Your task to perform on an android device: turn off location Image 0: 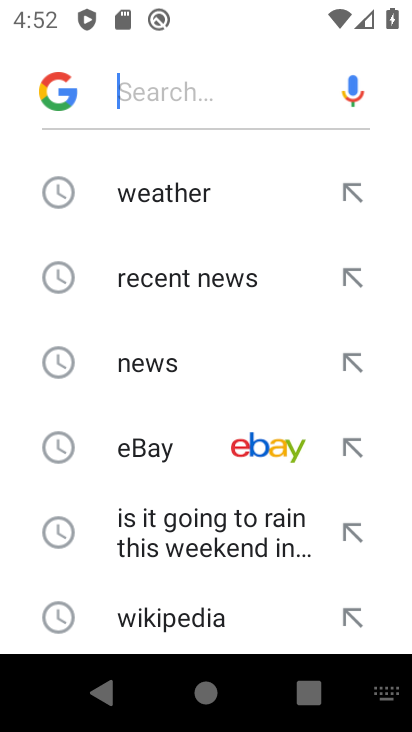
Step 0: press home button
Your task to perform on an android device: turn off location Image 1: 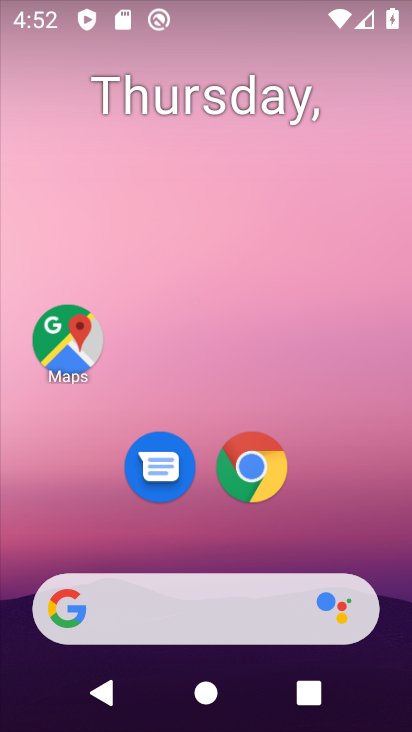
Step 1: drag from (381, 554) to (375, 129)
Your task to perform on an android device: turn off location Image 2: 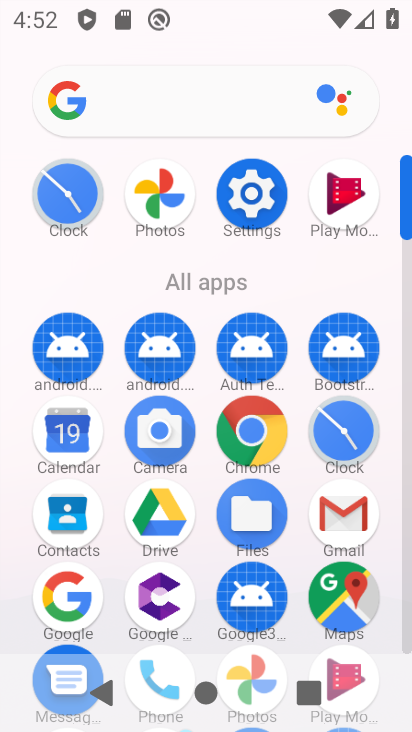
Step 2: click (241, 194)
Your task to perform on an android device: turn off location Image 3: 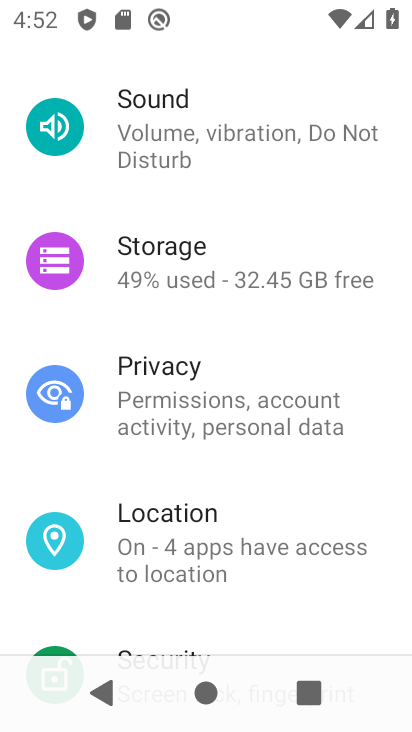
Step 3: click (277, 540)
Your task to perform on an android device: turn off location Image 4: 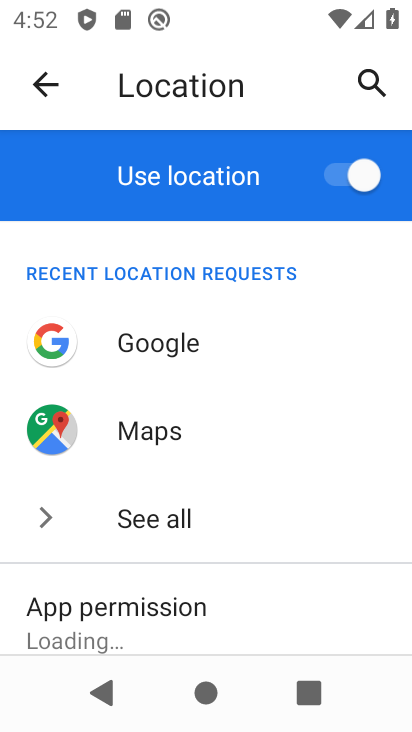
Step 4: click (349, 192)
Your task to perform on an android device: turn off location Image 5: 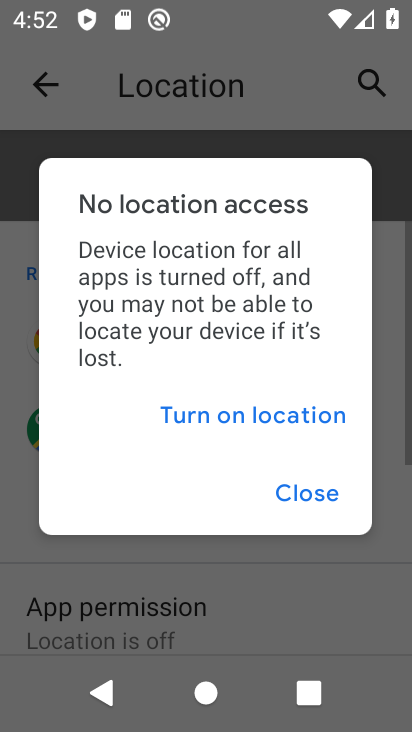
Step 5: task complete